Your task to perform on an android device: Open Youtube and go to "Your channel" Image 0: 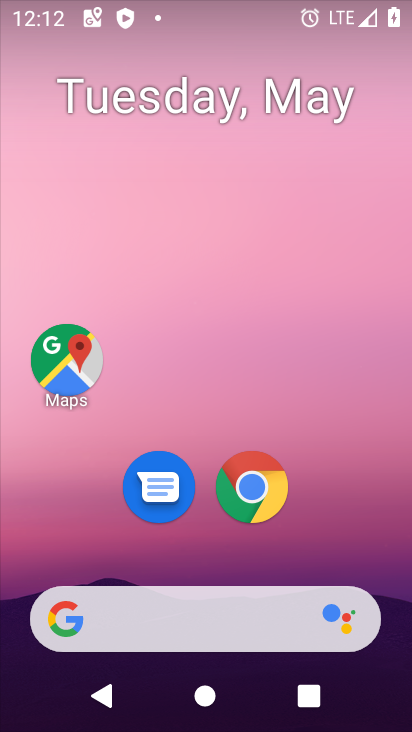
Step 0: drag from (41, 330) to (153, 43)
Your task to perform on an android device: Open Youtube and go to "Your channel" Image 1: 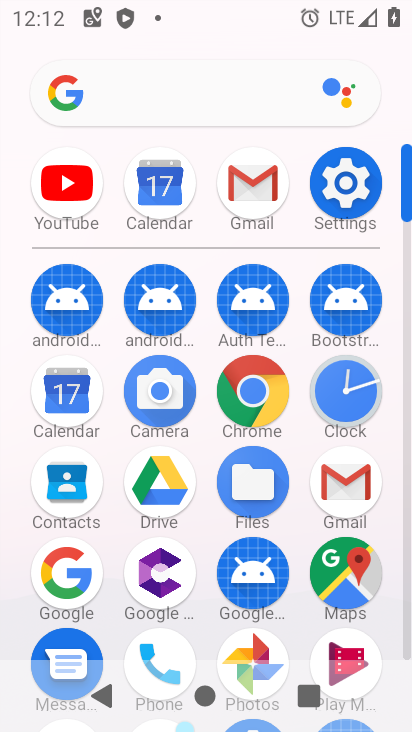
Step 1: click (55, 177)
Your task to perform on an android device: Open Youtube and go to "Your channel" Image 2: 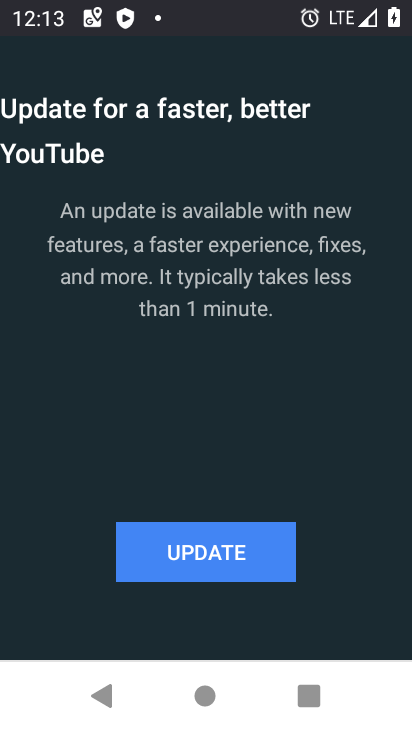
Step 2: task complete